Your task to perform on an android device: Show me the alarms in the clock app Image 0: 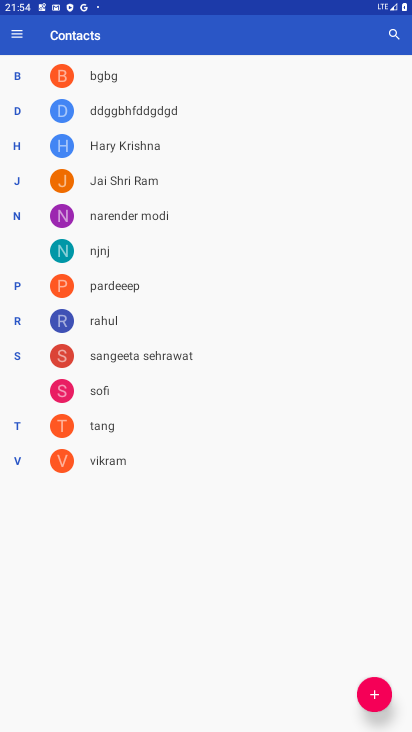
Step 0: press home button
Your task to perform on an android device: Show me the alarms in the clock app Image 1: 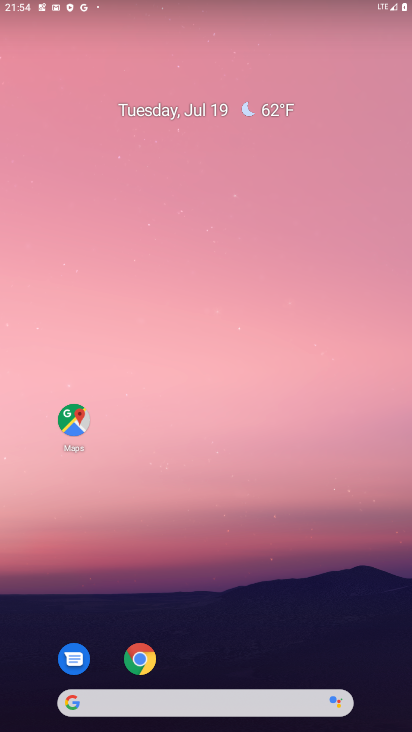
Step 1: drag from (306, 585) to (302, 168)
Your task to perform on an android device: Show me the alarms in the clock app Image 2: 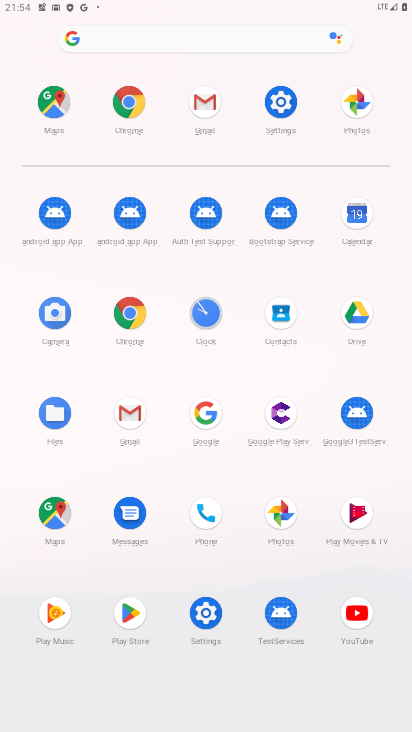
Step 2: click (207, 313)
Your task to perform on an android device: Show me the alarms in the clock app Image 3: 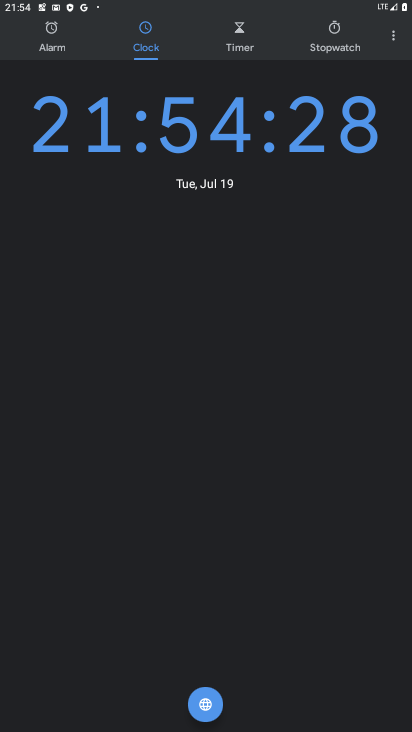
Step 3: click (52, 41)
Your task to perform on an android device: Show me the alarms in the clock app Image 4: 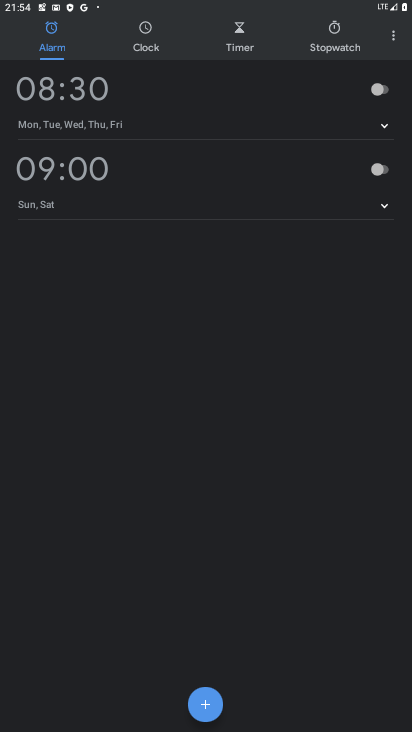
Step 4: task complete